Your task to perform on an android device: open device folders in google photos Image 0: 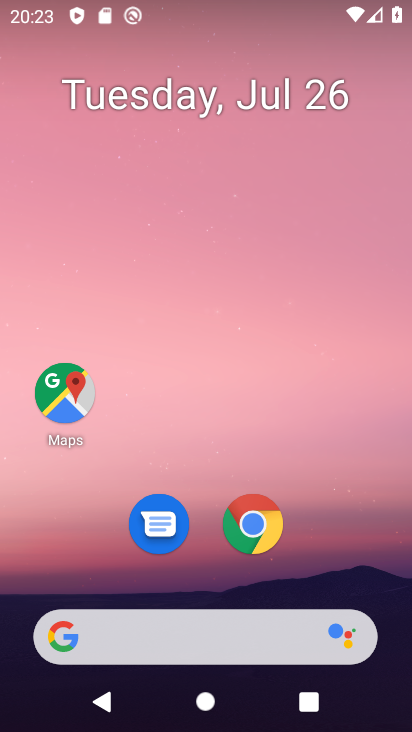
Step 0: press home button
Your task to perform on an android device: open device folders in google photos Image 1: 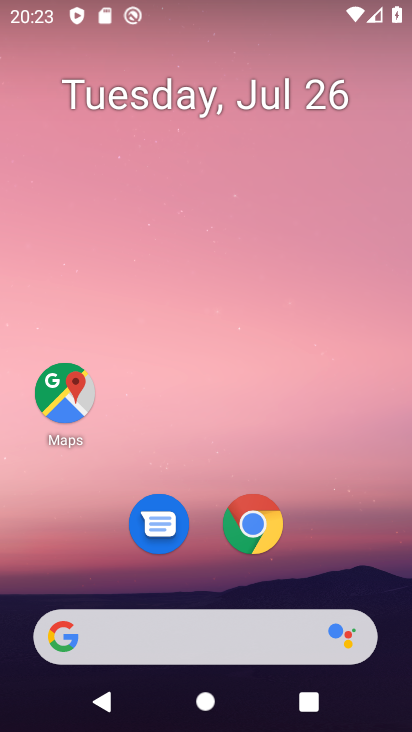
Step 1: drag from (199, 644) to (303, 209)
Your task to perform on an android device: open device folders in google photos Image 2: 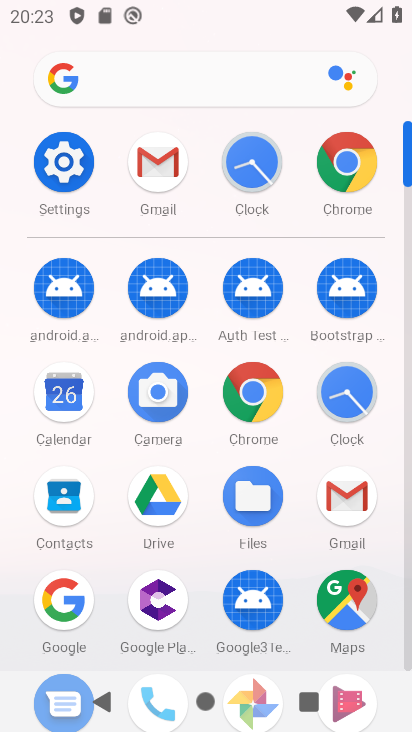
Step 2: drag from (207, 520) to (316, 55)
Your task to perform on an android device: open device folders in google photos Image 3: 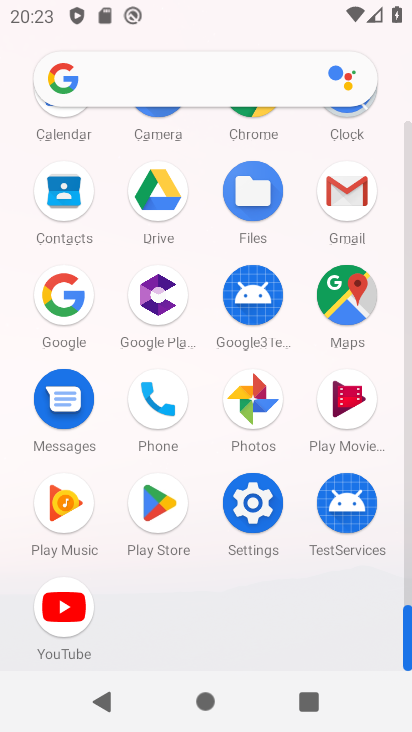
Step 3: click (265, 396)
Your task to perform on an android device: open device folders in google photos Image 4: 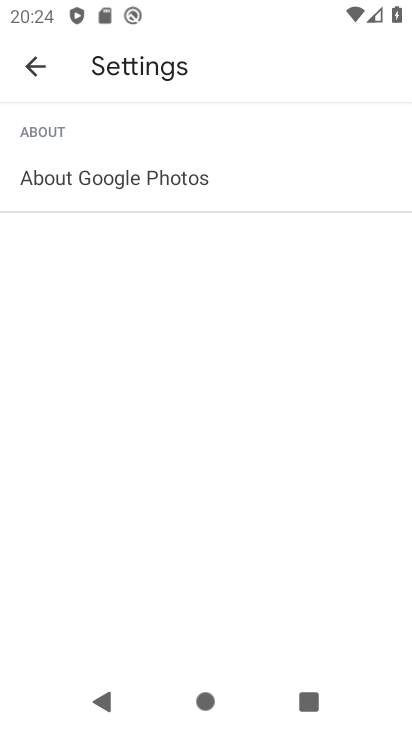
Step 4: click (38, 67)
Your task to perform on an android device: open device folders in google photos Image 5: 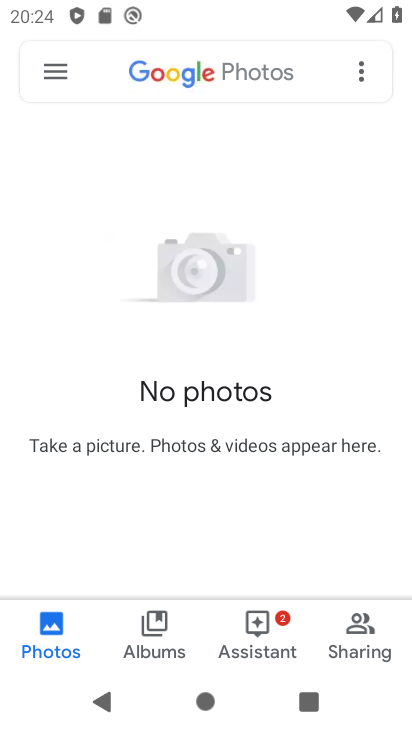
Step 5: click (47, 71)
Your task to perform on an android device: open device folders in google photos Image 6: 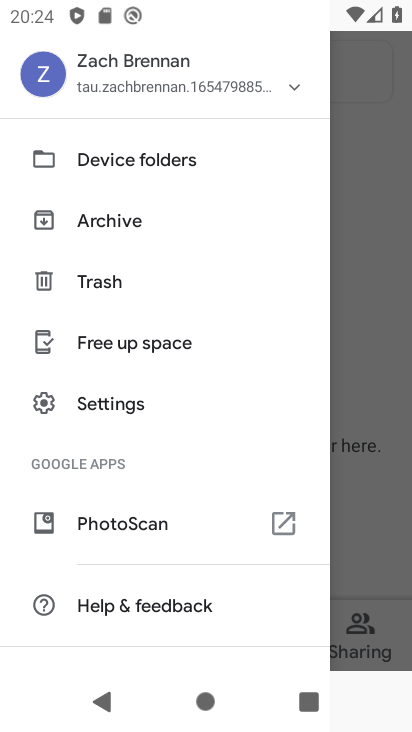
Step 6: click (99, 159)
Your task to perform on an android device: open device folders in google photos Image 7: 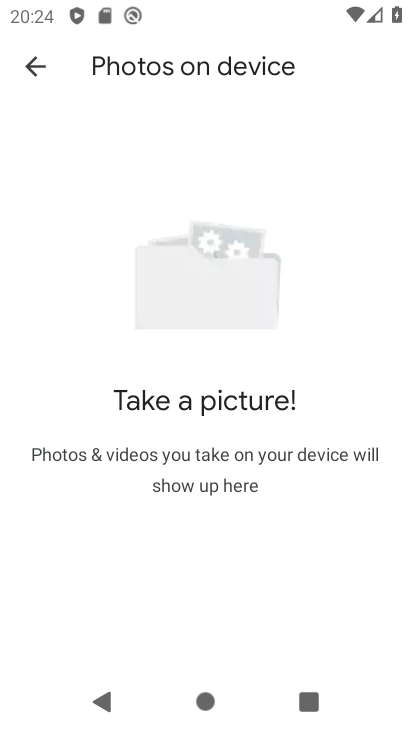
Step 7: task complete